Your task to perform on an android device: turn on showing notifications on the lock screen Image 0: 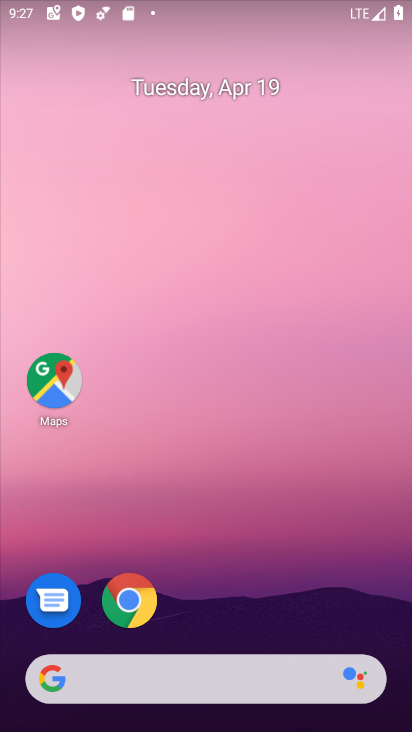
Step 0: drag from (395, 593) to (334, 65)
Your task to perform on an android device: turn on showing notifications on the lock screen Image 1: 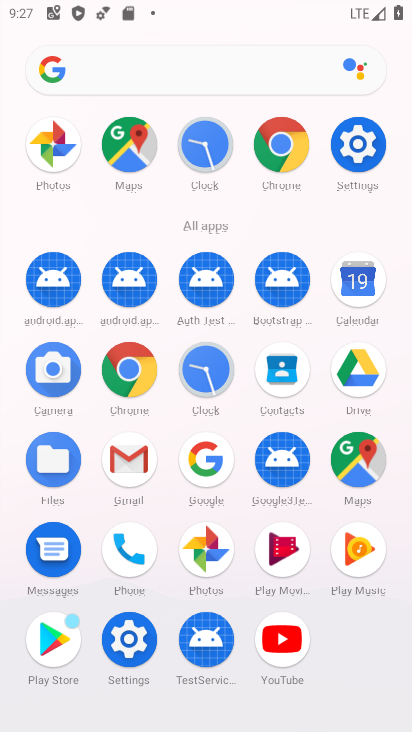
Step 1: click (357, 153)
Your task to perform on an android device: turn on showing notifications on the lock screen Image 2: 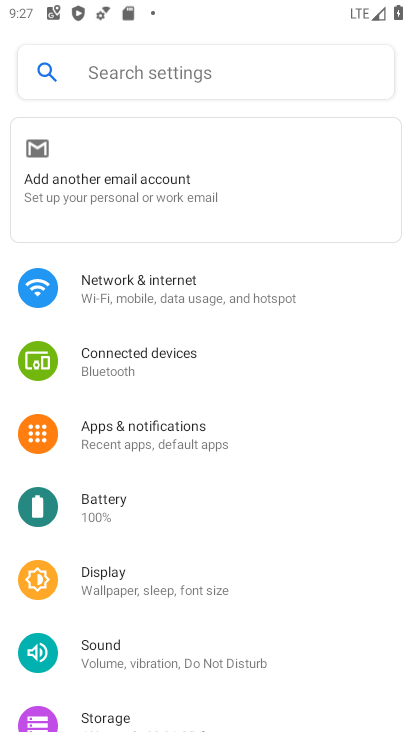
Step 2: click (278, 436)
Your task to perform on an android device: turn on showing notifications on the lock screen Image 3: 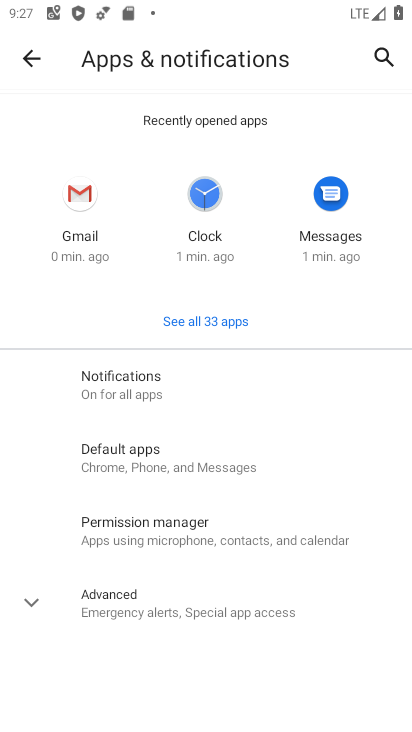
Step 3: click (260, 386)
Your task to perform on an android device: turn on showing notifications on the lock screen Image 4: 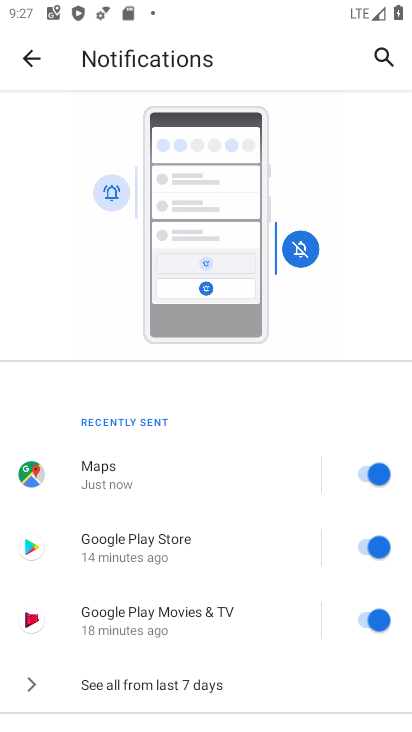
Step 4: drag from (263, 647) to (256, 245)
Your task to perform on an android device: turn on showing notifications on the lock screen Image 5: 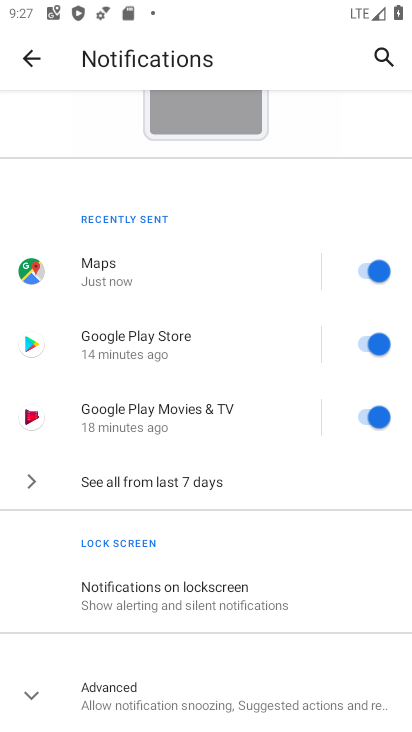
Step 5: click (269, 591)
Your task to perform on an android device: turn on showing notifications on the lock screen Image 6: 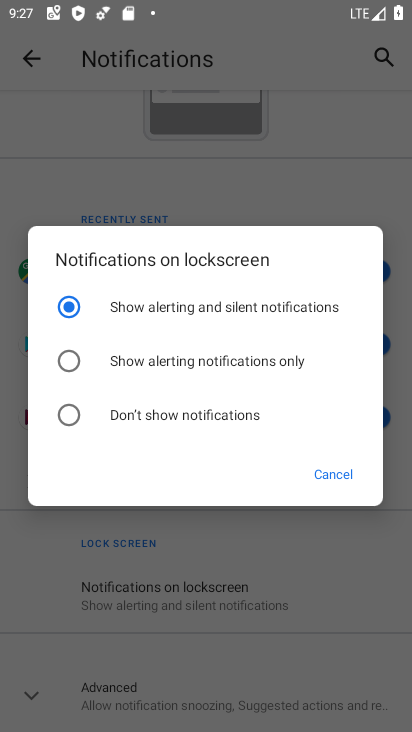
Step 6: task complete